Your task to perform on an android device: turn off translation in the chrome app Image 0: 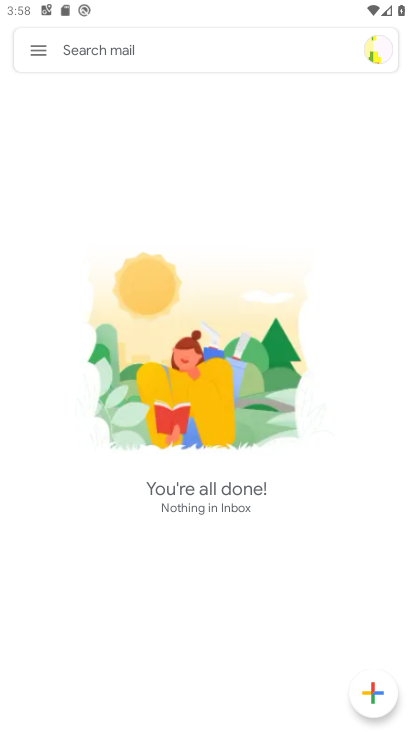
Step 0: press home button
Your task to perform on an android device: turn off translation in the chrome app Image 1: 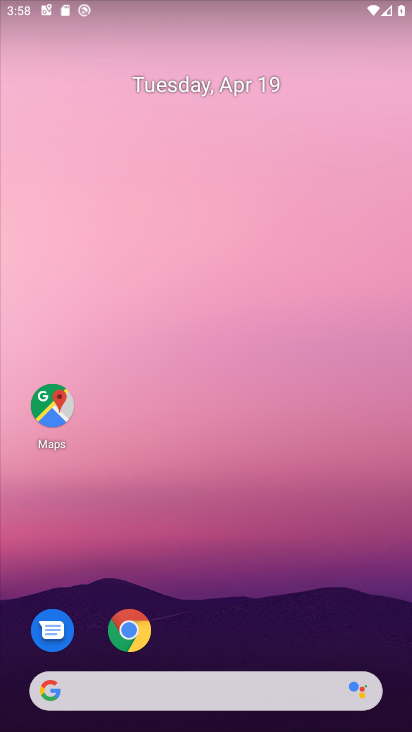
Step 1: click (124, 643)
Your task to perform on an android device: turn off translation in the chrome app Image 2: 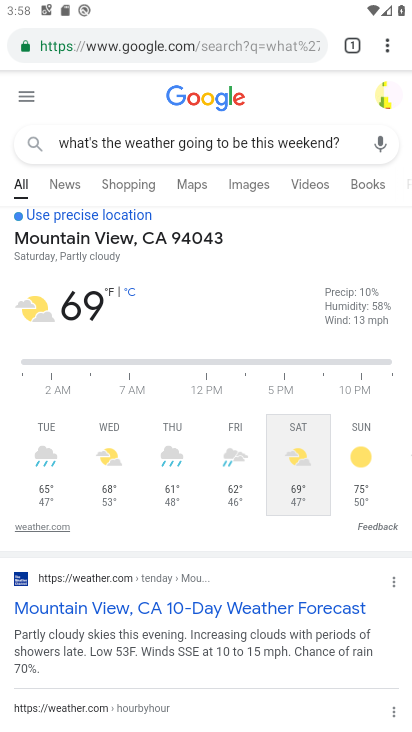
Step 2: drag from (389, 44) to (241, 565)
Your task to perform on an android device: turn off translation in the chrome app Image 3: 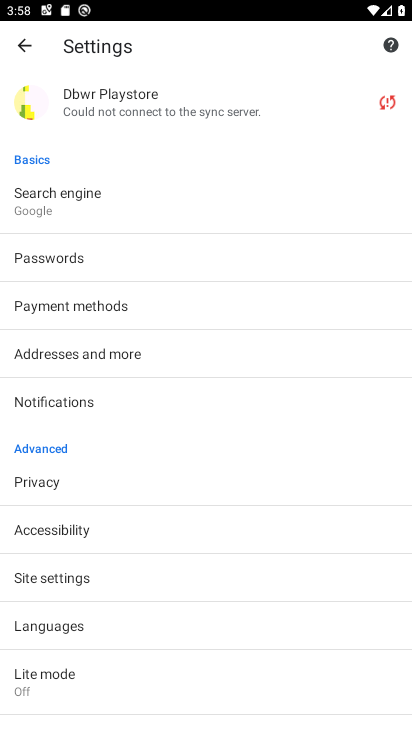
Step 3: click (61, 625)
Your task to perform on an android device: turn off translation in the chrome app Image 4: 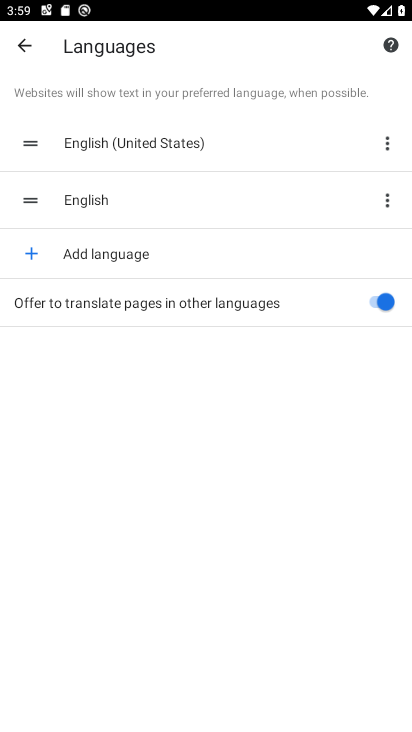
Step 4: click (385, 301)
Your task to perform on an android device: turn off translation in the chrome app Image 5: 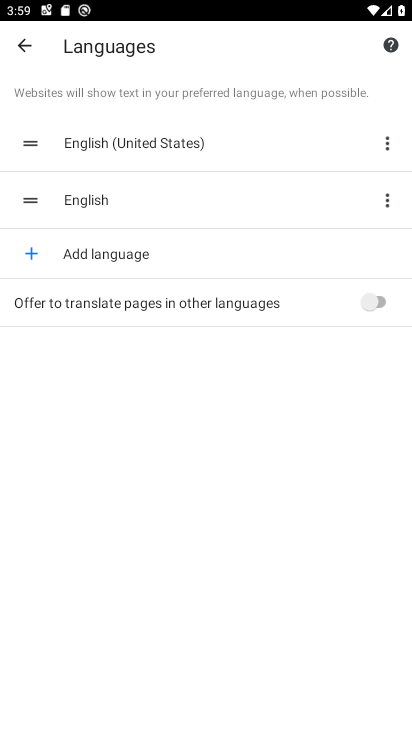
Step 5: task complete